Your task to perform on an android device: set default search engine in the chrome app Image 0: 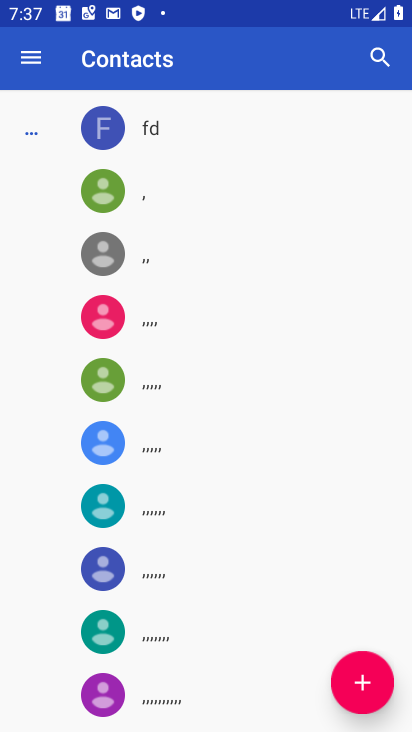
Step 0: press home button
Your task to perform on an android device: set default search engine in the chrome app Image 1: 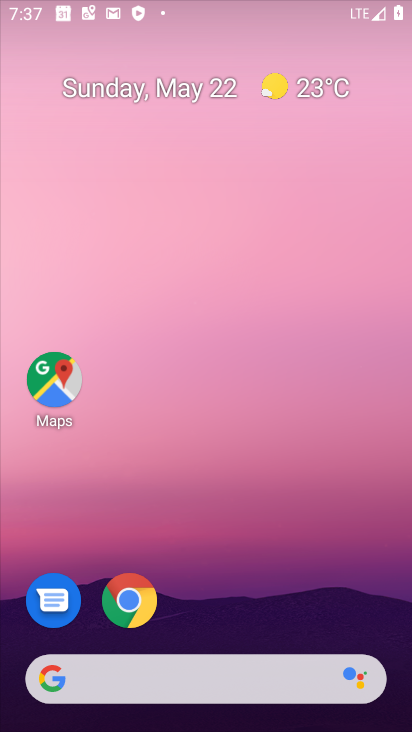
Step 1: drag from (359, 628) to (189, 104)
Your task to perform on an android device: set default search engine in the chrome app Image 2: 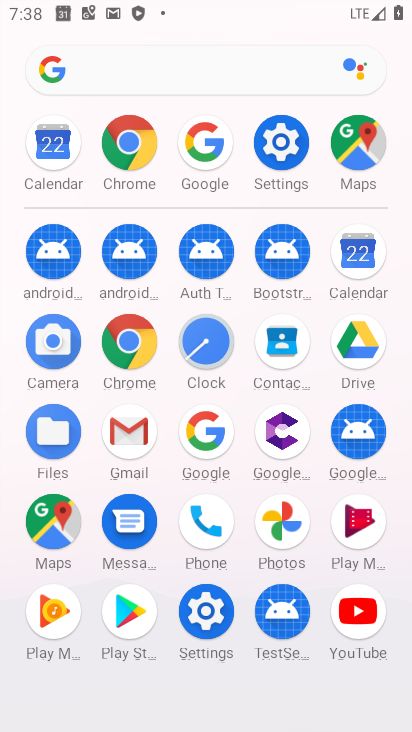
Step 2: click (128, 351)
Your task to perform on an android device: set default search engine in the chrome app Image 3: 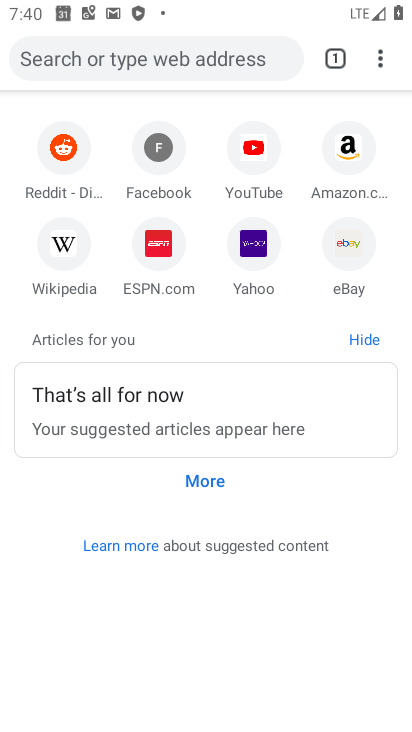
Step 3: click (378, 46)
Your task to perform on an android device: set default search engine in the chrome app Image 4: 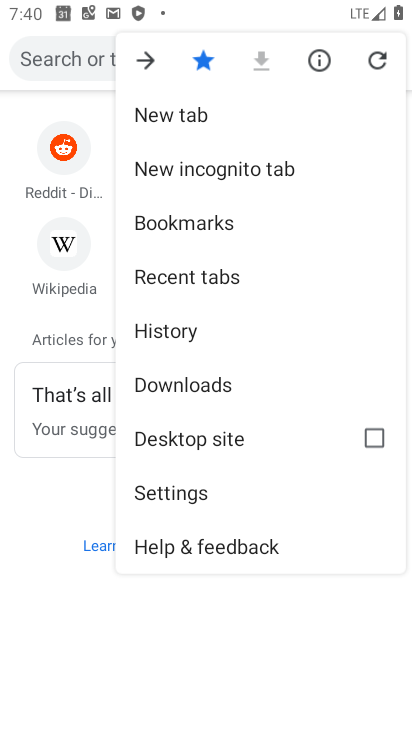
Step 4: click (230, 491)
Your task to perform on an android device: set default search engine in the chrome app Image 5: 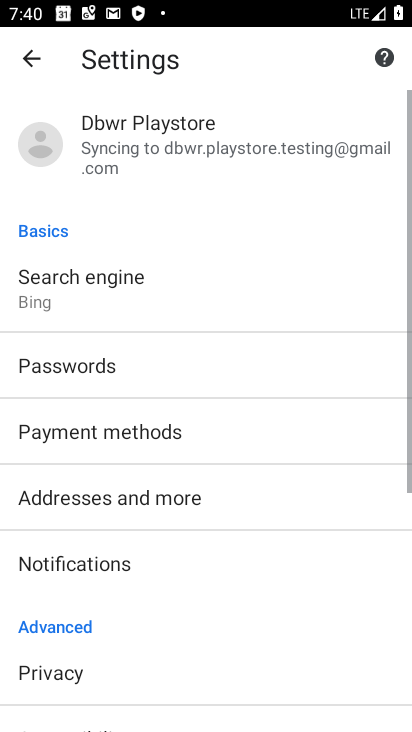
Step 5: click (97, 294)
Your task to perform on an android device: set default search engine in the chrome app Image 6: 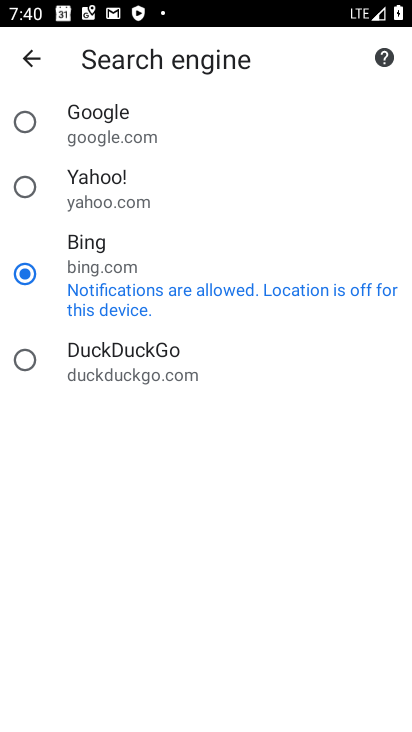
Step 6: click (73, 131)
Your task to perform on an android device: set default search engine in the chrome app Image 7: 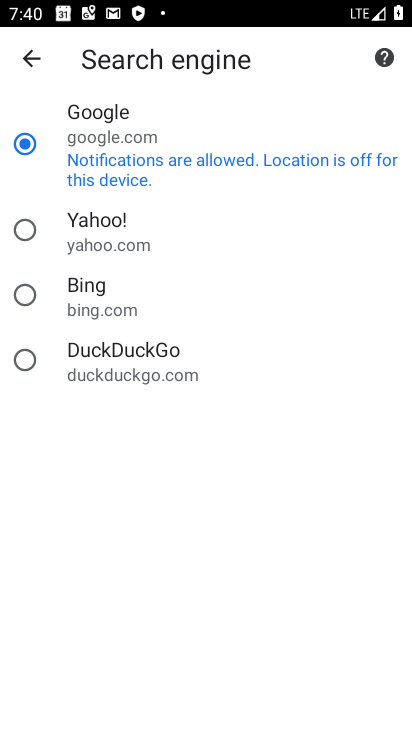
Step 7: task complete